Your task to perform on an android device: turn on the 12-hour format for clock Image 0: 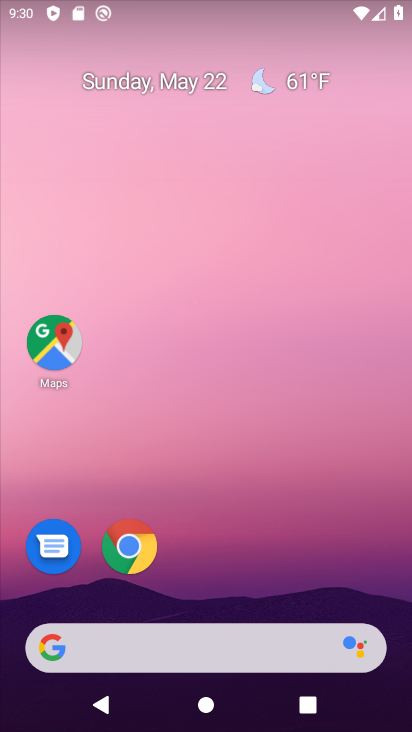
Step 0: drag from (214, 634) to (205, 86)
Your task to perform on an android device: turn on the 12-hour format for clock Image 1: 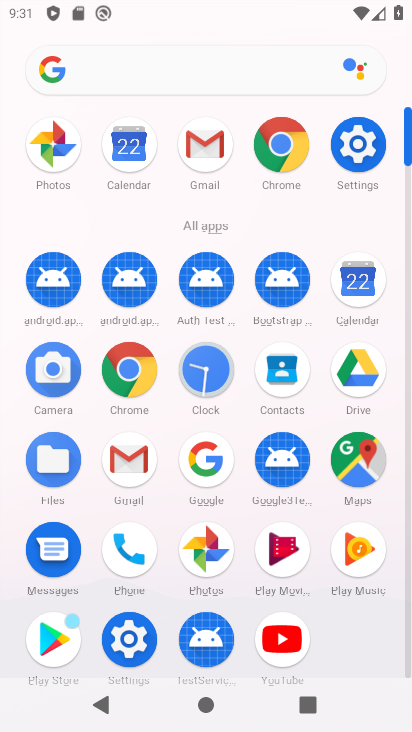
Step 1: click (367, 141)
Your task to perform on an android device: turn on the 12-hour format for clock Image 2: 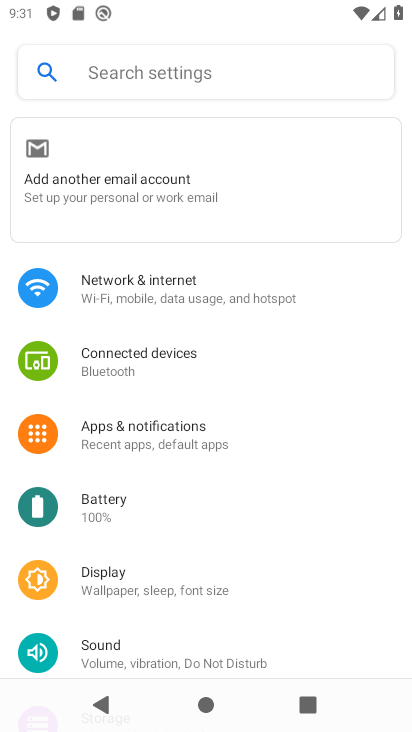
Step 2: drag from (194, 585) to (178, 0)
Your task to perform on an android device: turn on the 12-hour format for clock Image 3: 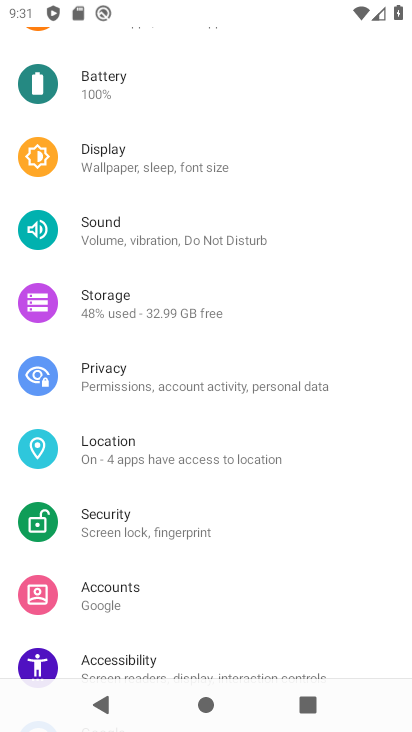
Step 3: drag from (158, 701) to (148, 295)
Your task to perform on an android device: turn on the 12-hour format for clock Image 4: 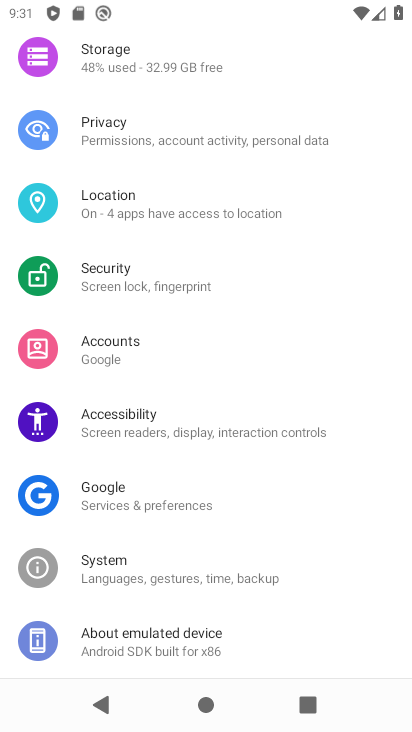
Step 4: click (166, 591)
Your task to perform on an android device: turn on the 12-hour format for clock Image 5: 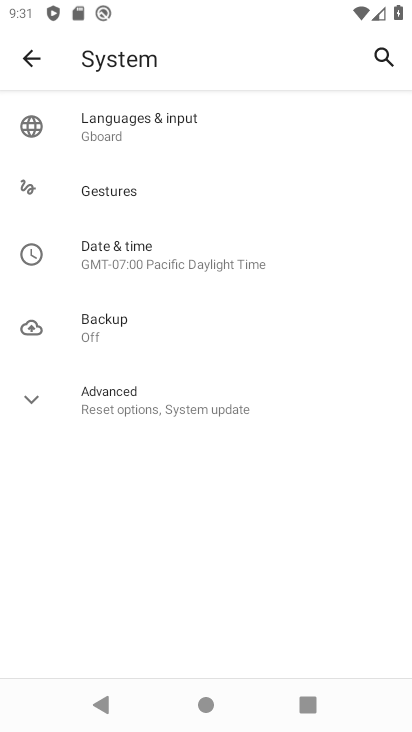
Step 5: click (152, 251)
Your task to perform on an android device: turn on the 12-hour format for clock Image 6: 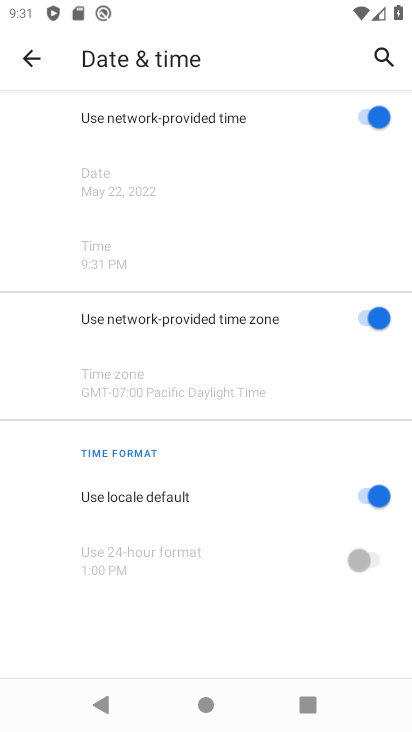
Step 6: task complete